Your task to perform on an android device: turn off priority inbox in the gmail app Image 0: 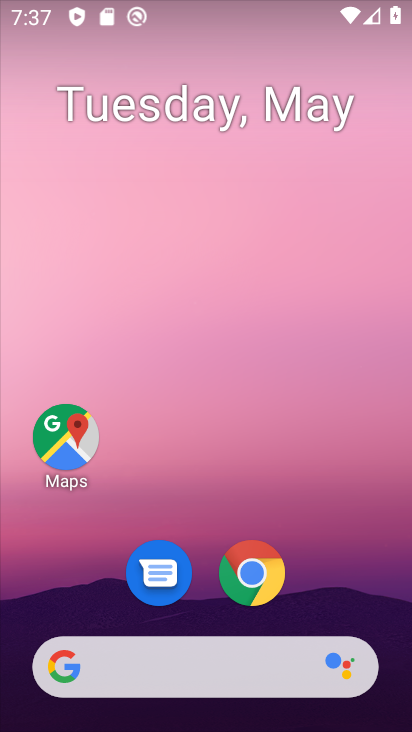
Step 0: drag from (204, 609) to (204, 252)
Your task to perform on an android device: turn off priority inbox in the gmail app Image 1: 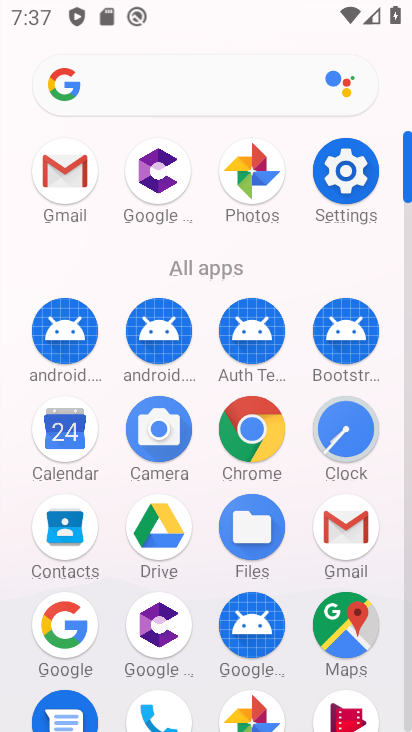
Step 1: click (334, 523)
Your task to perform on an android device: turn off priority inbox in the gmail app Image 2: 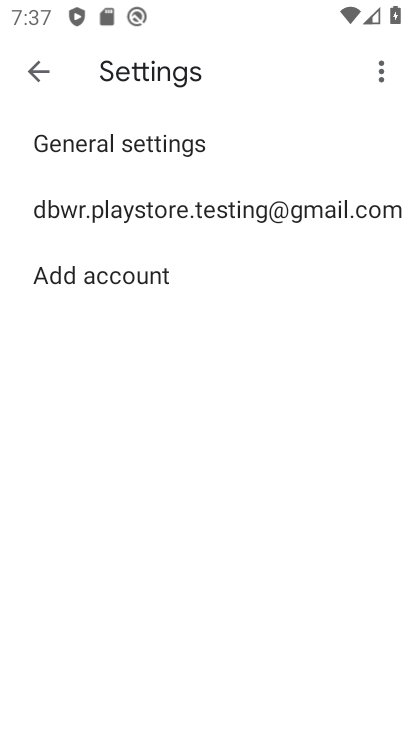
Step 2: click (181, 226)
Your task to perform on an android device: turn off priority inbox in the gmail app Image 3: 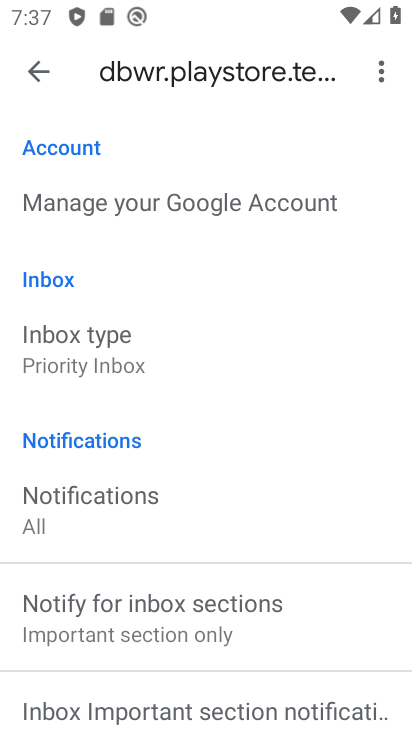
Step 3: click (106, 373)
Your task to perform on an android device: turn off priority inbox in the gmail app Image 4: 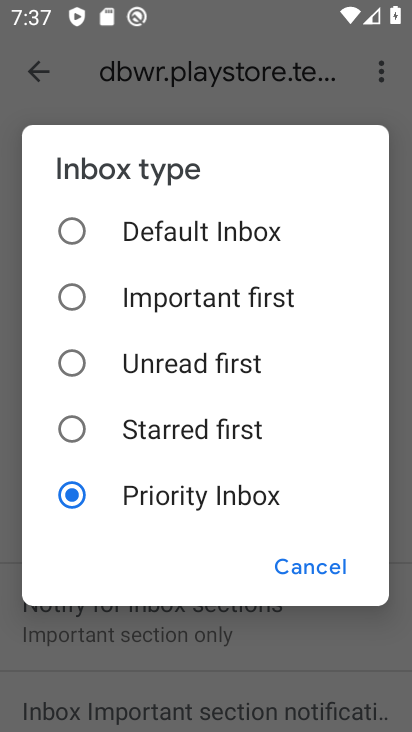
Step 4: click (160, 234)
Your task to perform on an android device: turn off priority inbox in the gmail app Image 5: 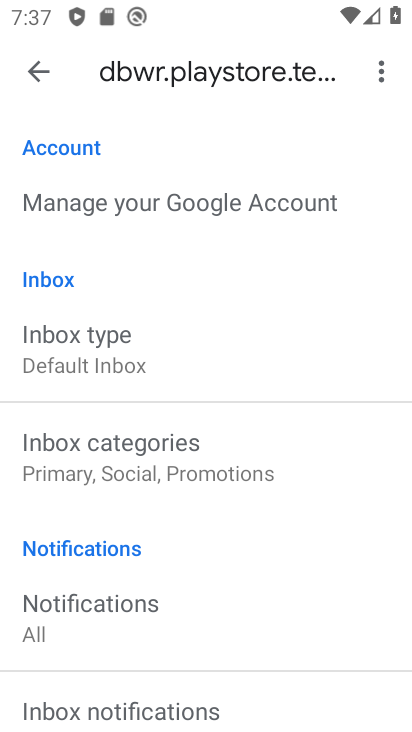
Step 5: task complete